Your task to perform on an android device: Toggle the flashlight Image 0: 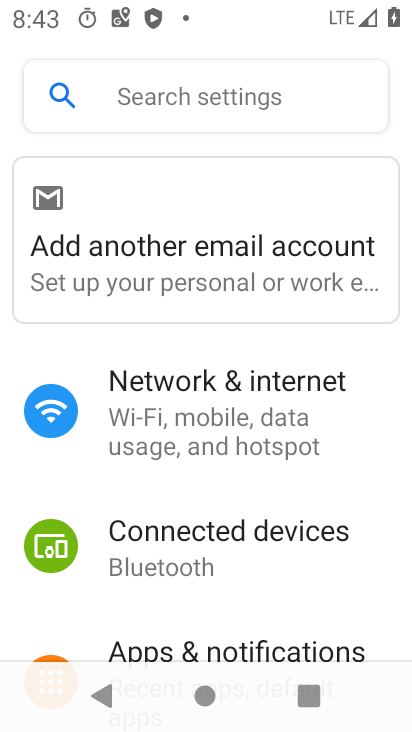
Step 0: press home button
Your task to perform on an android device: Toggle the flashlight Image 1: 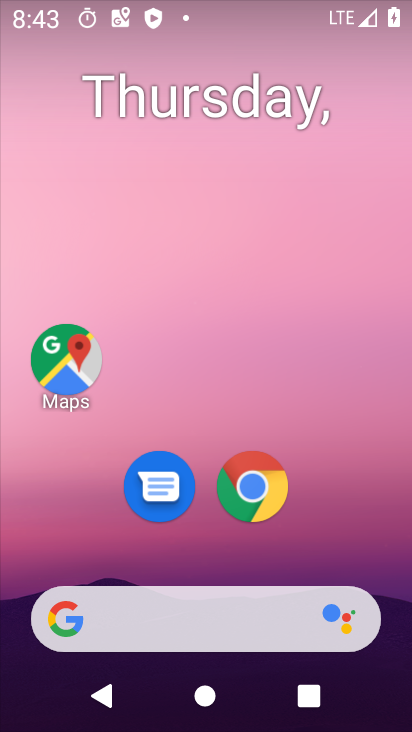
Step 1: task complete